Your task to perform on an android device: delete a single message in the gmail app Image 0: 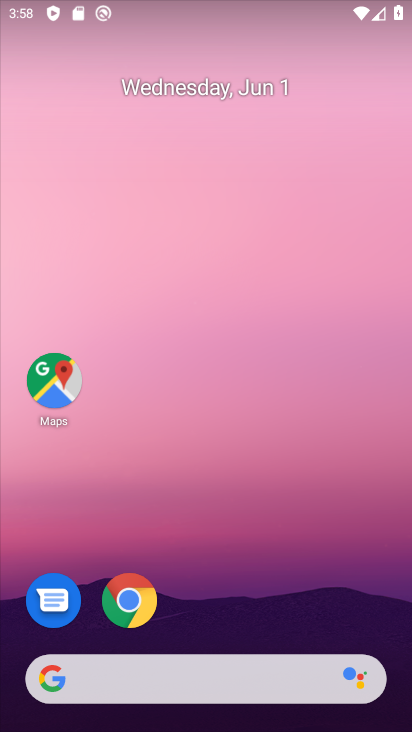
Step 0: drag from (280, 622) to (276, 297)
Your task to perform on an android device: delete a single message in the gmail app Image 1: 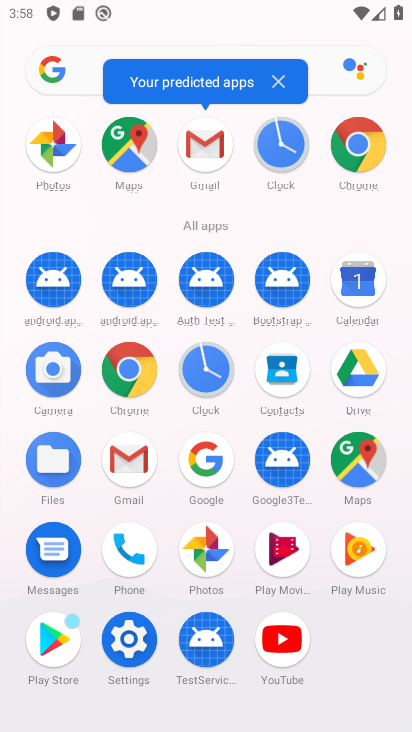
Step 1: click (220, 148)
Your task to perform on an android device: delete a single message in the gmail app Image 2: 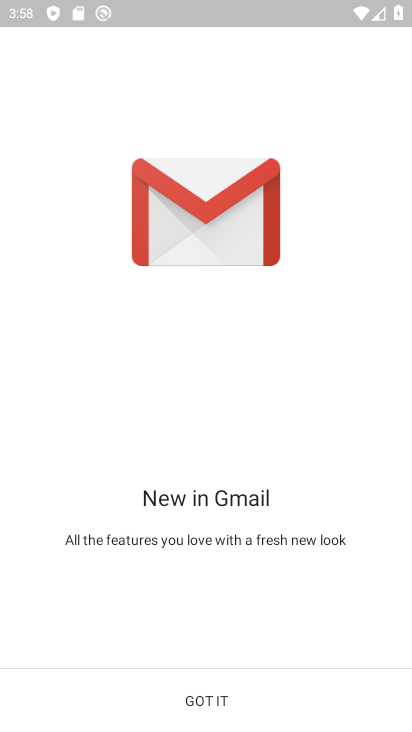
Step 2: click (197, 709)
Your task to perform on an android device: delete a single message in the gmail app Image 3: 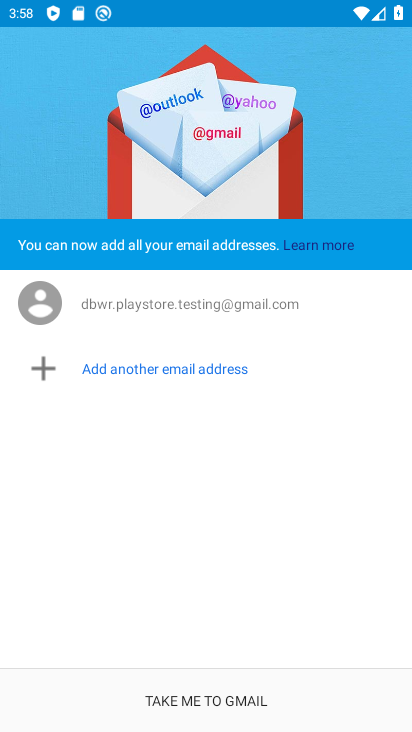
Step 3: click (197, 709)
Your task to perform on an android device: delete a single message in the gmail app Image 4: 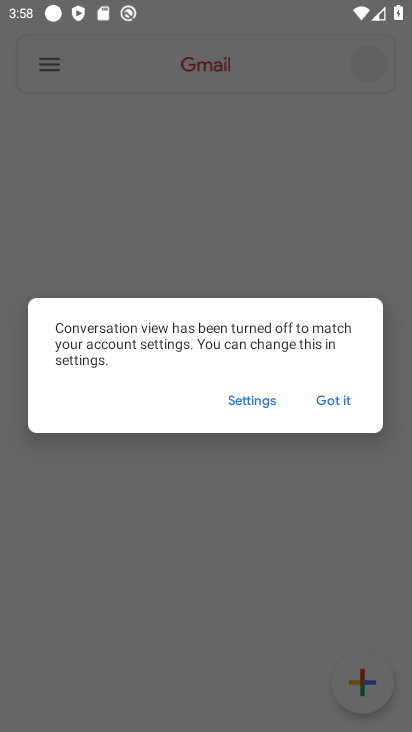
Step 4: click (197, 703)
Your task to perform on an android device: delete a single message in the gmail app Image 5: 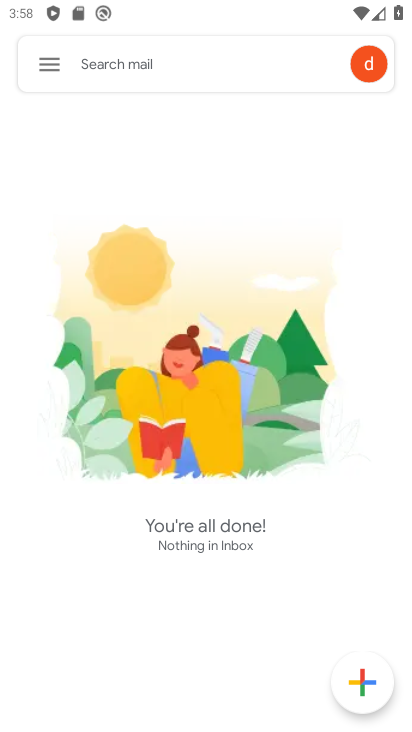
Step 5: task complete